Your task to perform on an android device: Open calendar and show me the third week of next month Image 0: 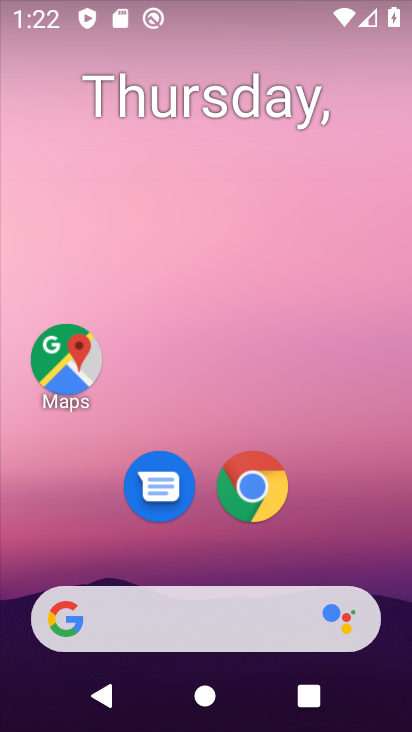
Step 0: drag from (374, 536) to (328, 294)
Your task to perform on an android device: Open calendar and show me the third week of next month Image 1: 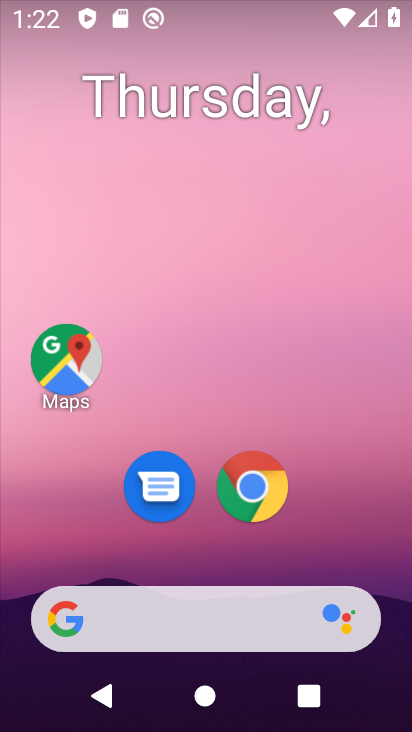
Step 1: drag from (382, 539) to (283, 83)
Your task to perform on an android device: Open calendar and show me the third week of next month Image 2: 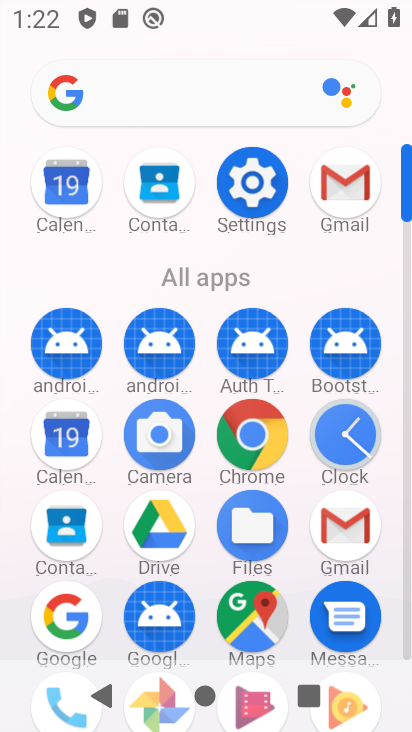
Step 2: click (75, 208)
Your task to perform on an android device: Open calendar and show me the third week of next month Image 3: 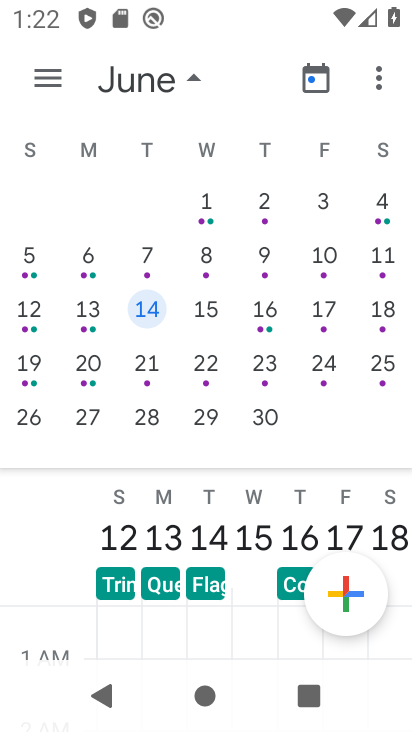
Step 3: click (204, 312)
Your task to perform on an android device: Open calendar and show me the third week of next month Image 4: 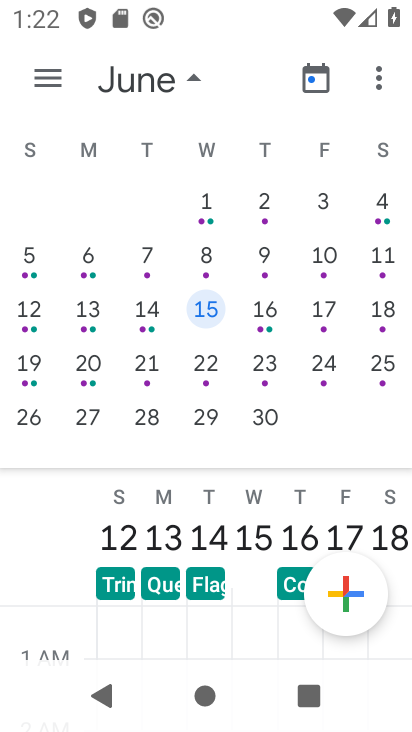
Step 4: click (177, 80)
Your task to perform on an android device: Open calendar and show me the third week of next month Image 5: 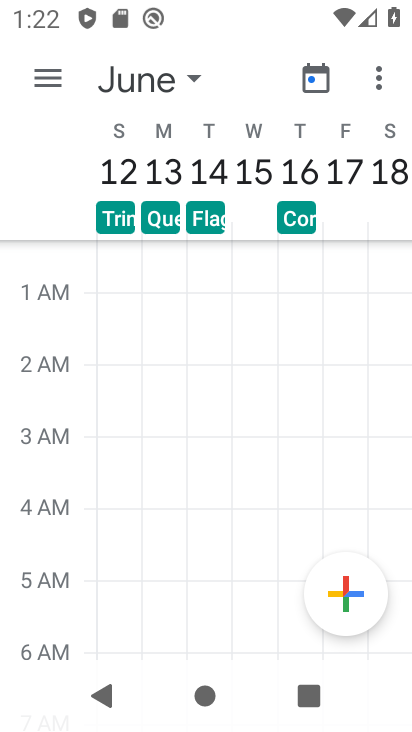
Step 5: task complete